Your task to perform on an android device: search for starred emails in the gmail app Image 0: 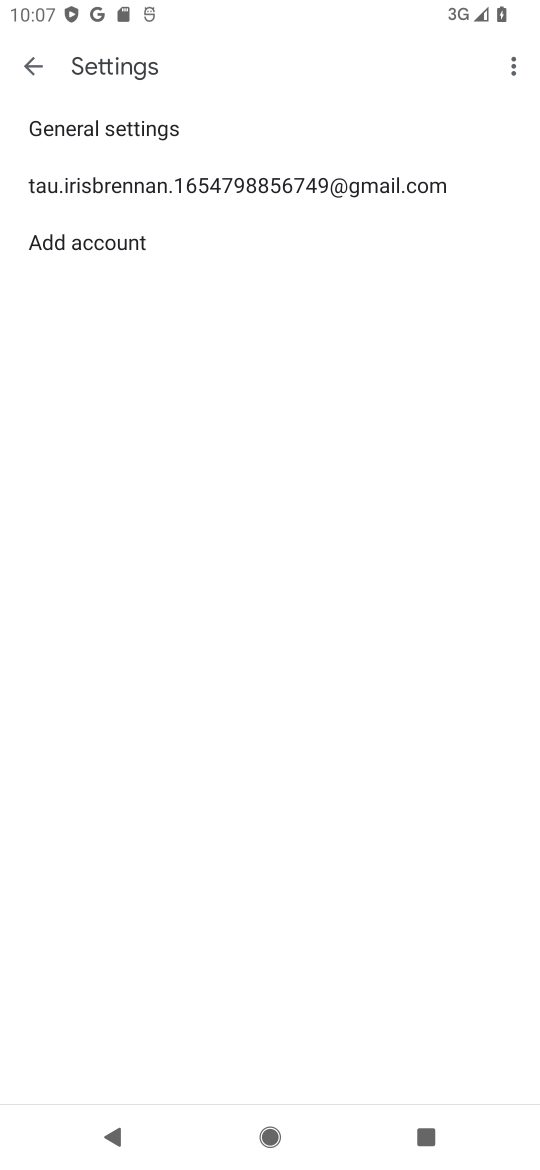
Step 0: press home button
Your task to perform on an android device: search for starred emails in the gmail app Image 1: 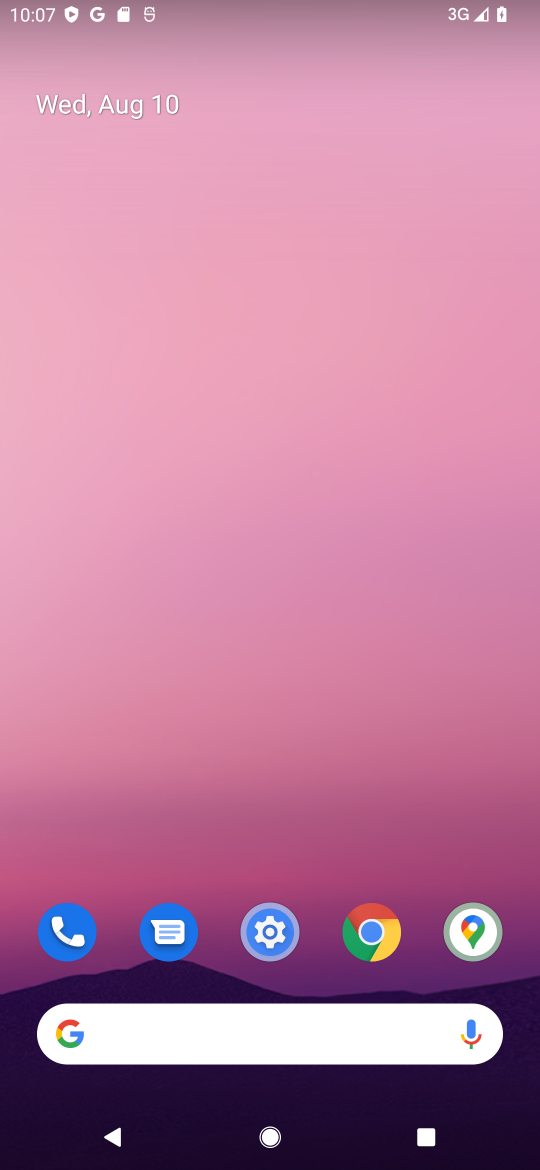
Step 1: drag from (282, 826) to (286, 116)
Your task to perform on an android device: search for starred emails in the gmail app Image 2: 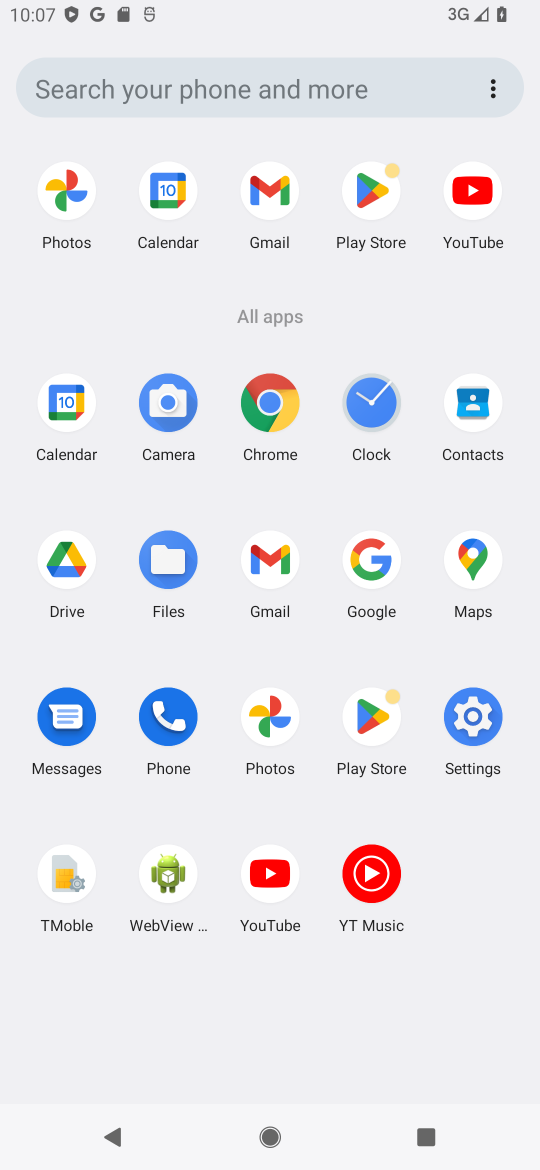
Step 2: click (270, 185)
Your task to perform on an android device: search for starred emails in the gmail app Image 3: 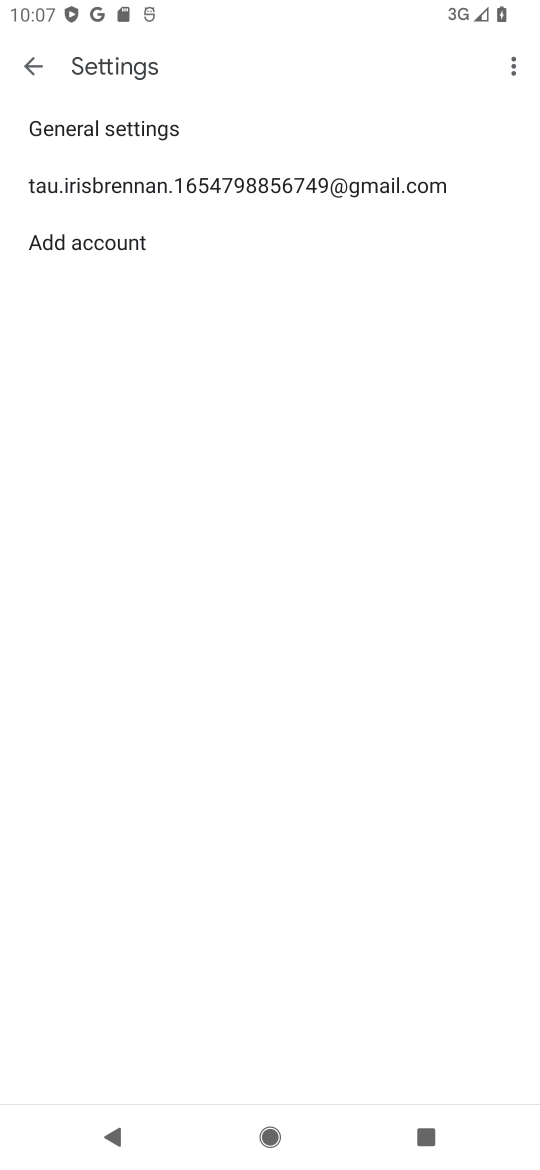
Step 3: click (39, 62)
Your task to perform on an android device: search for starred emails in the gmail app Image 4: 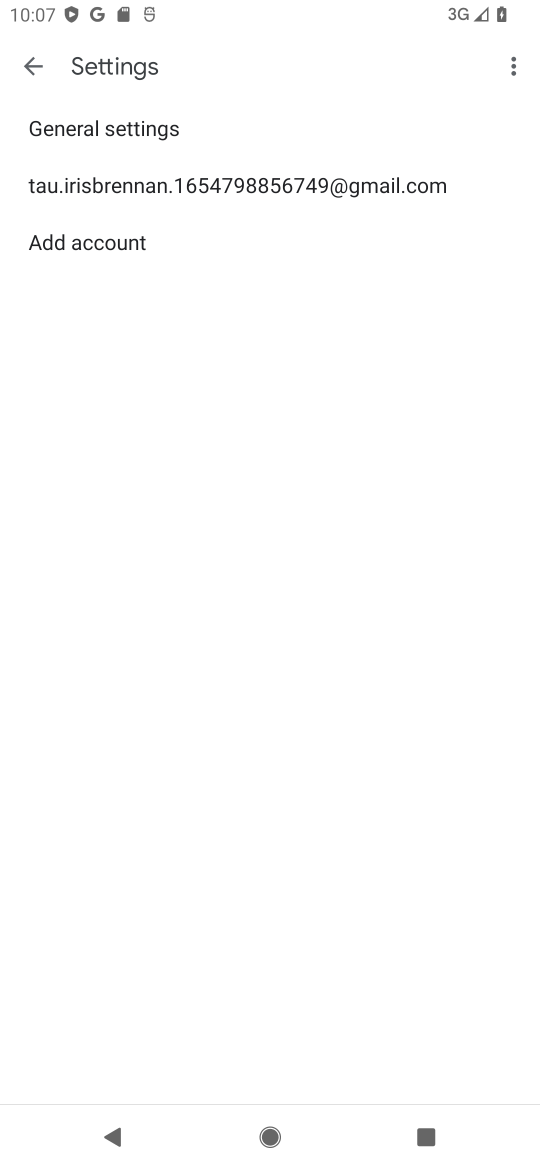
Step 4: click (29, 62)
Your task to perform on an android device: search for starred emails in the gmail app Image 5: 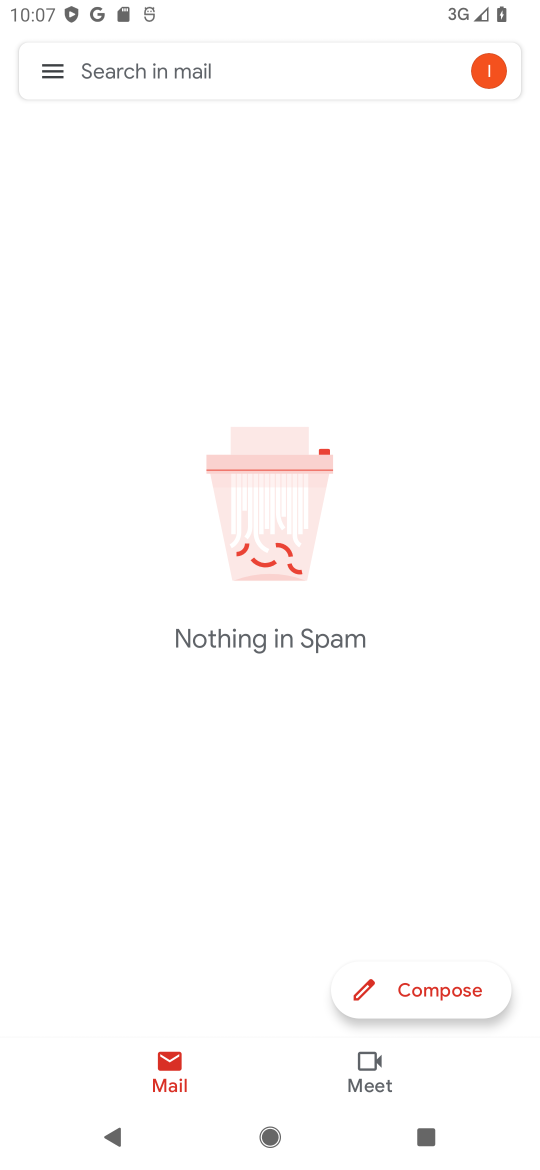
Step 5: click (55, 55)
Your task to perform on an android device: search for starred emails in the gmail app Image 6: 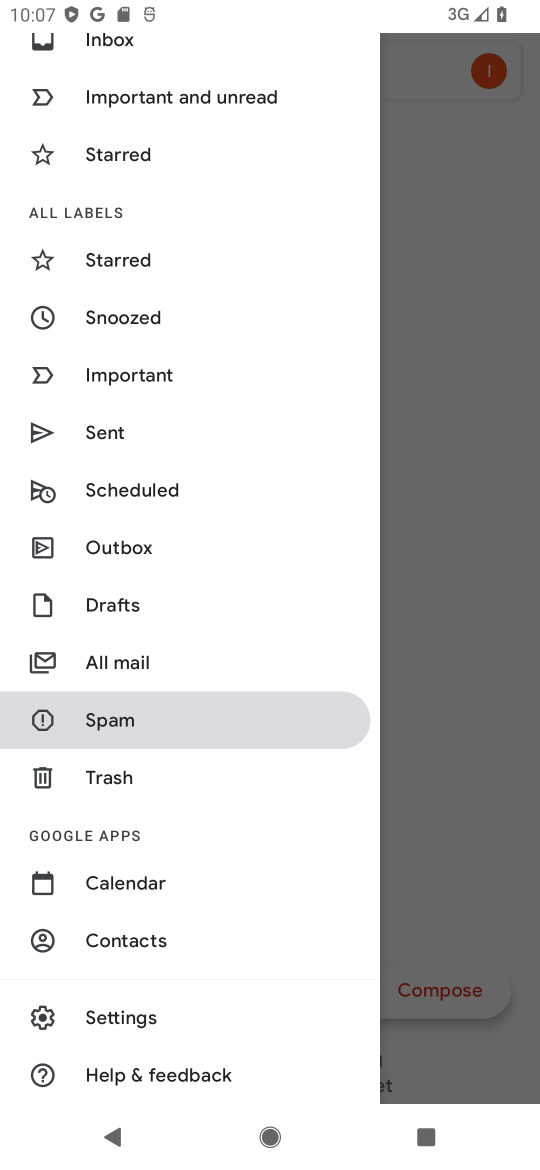
Step 6: click (112, 245)
Your task to perform on an android device: search for starred emails in the gmail app Image 7: 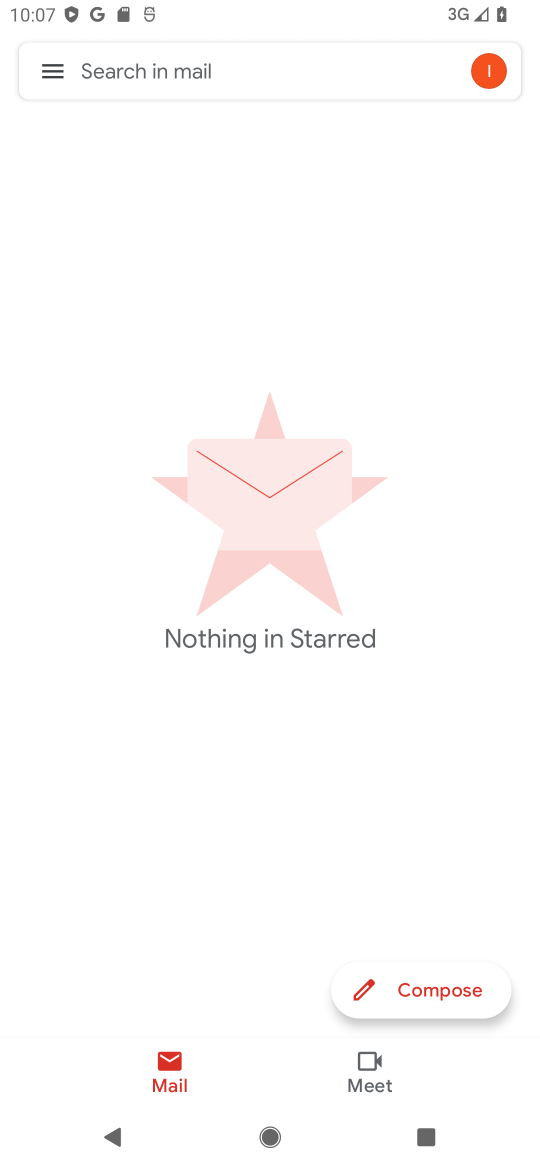
Step 7: task complete